Your task to perform on an android device: see creations saved in the google photos Image 0: 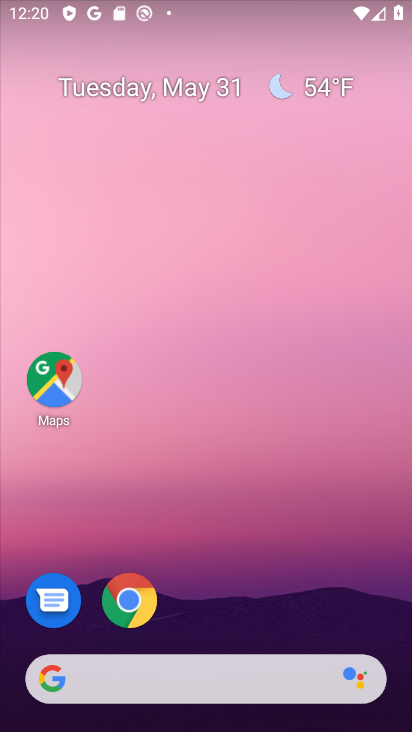
Step 0: drag from (186, 646) to (0, 416)
Your task to perform on an android device: see creations saved in the google photos Image 1: 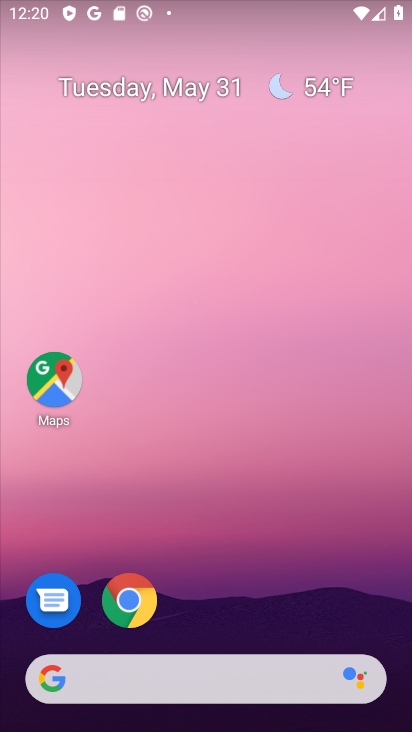
Step 1: click (193, 556)
Your task to perform on an android device: see creations saved in the google photos Image 2: 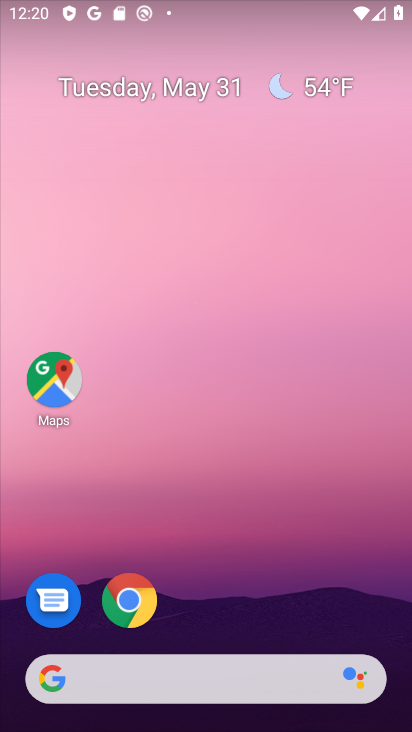
Step 2: drag from (193, 556) to (263, 14)
Your task to perform on an android device: see creations saved in the google photos Image 3: 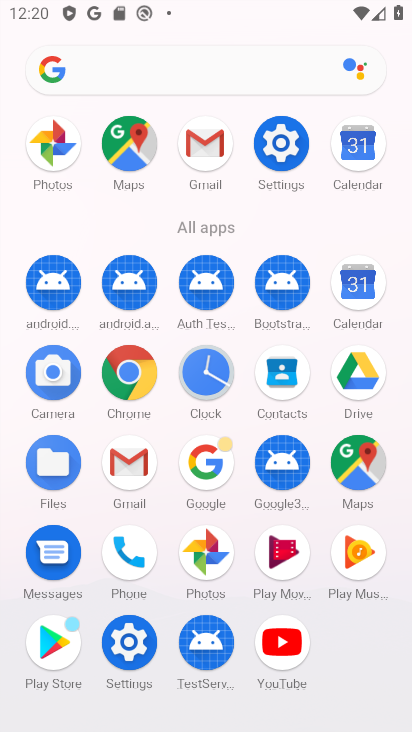
Step 3: click (209, 583)
Your task to perform on an android device: see creations saved in the google photos Image 4: 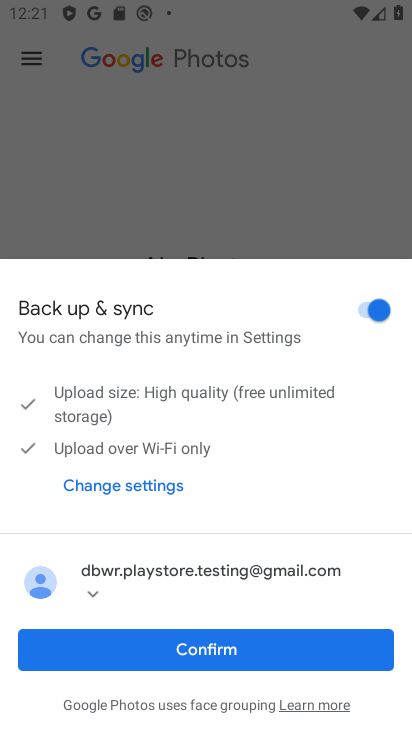
Step 4: click (265, 641)
Your task to perform on an android device: see creations saved in the google photos Image 5: 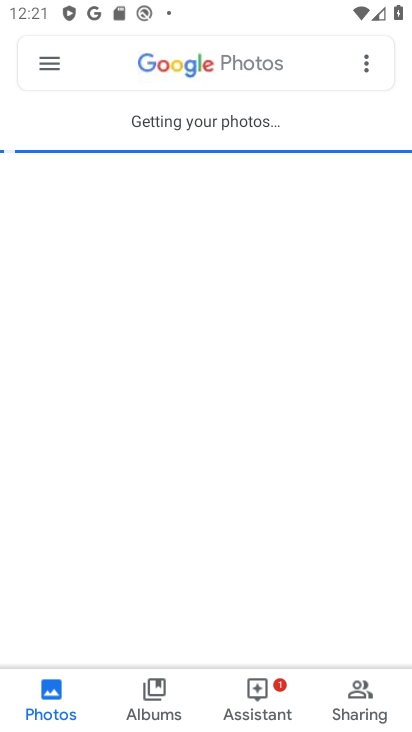
Step 5: click (169, 72)
Your task to perform on an android device: see creations saved in the google photos Image 6: 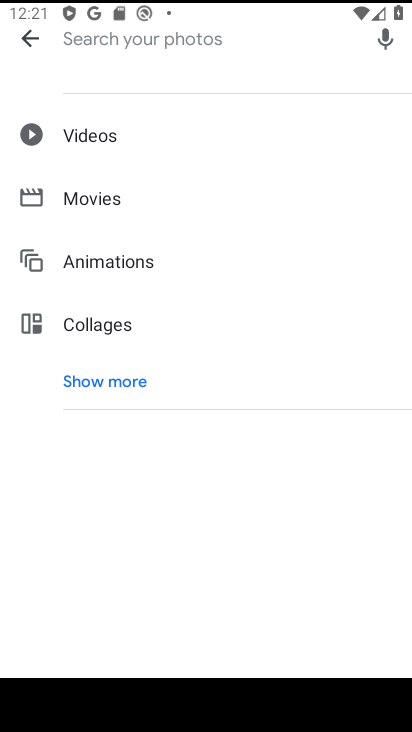
Step 6: click (99, 382)
Your task to perform on an android device: see creations saved in the google photos Image 7: 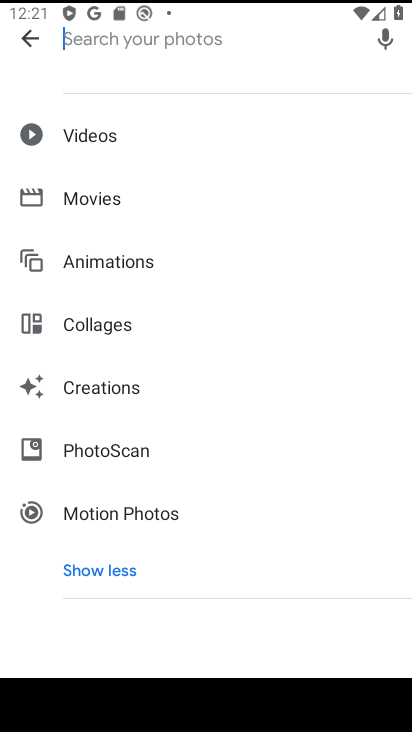
Step 7: click (97, 390)
Your task to perform on an android device: see creations saved in the google photos Image 8: 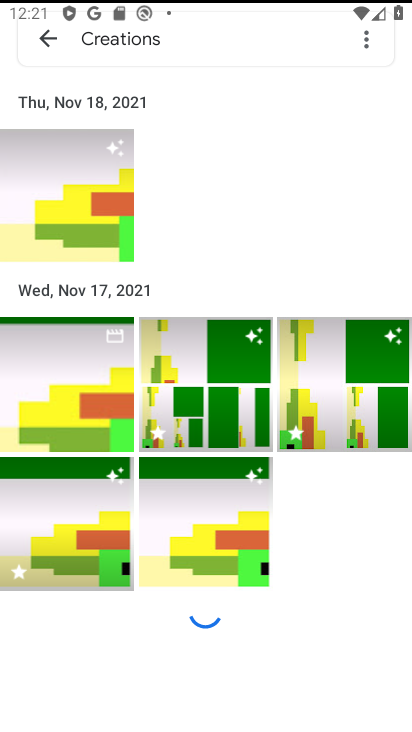
Step 8: task complete